Your task to perform on an android device: see sites visited before in the chrome app Image 0: 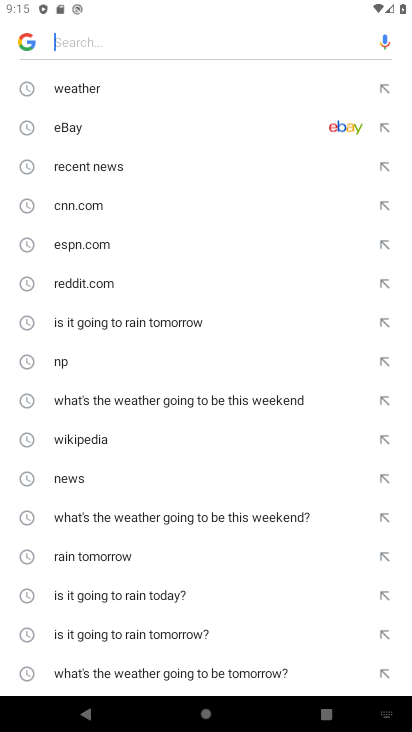
Step 0: press home button
Your task to perform on an android device: see sites visited before in the chrome app Image 1: 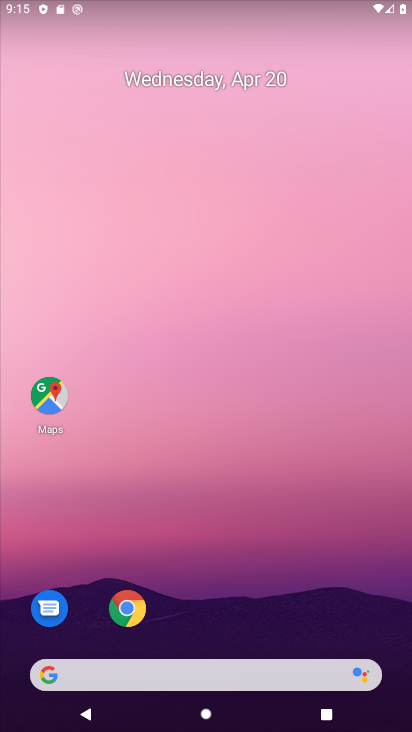
Step 1: click (147, 604)
Your task to perform on an android device: see sites visited before in the chrome app Image 2: 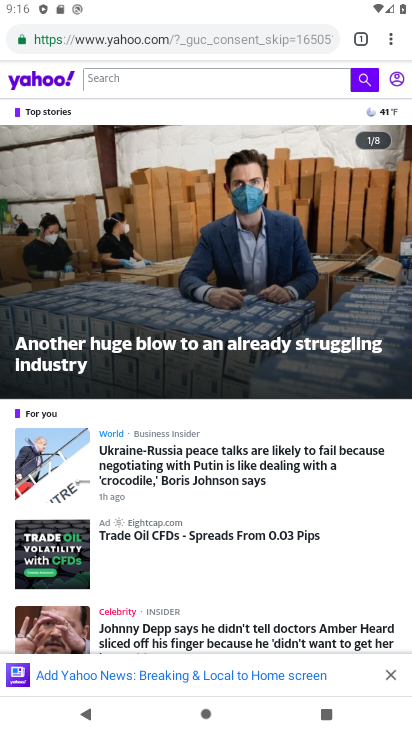
Step 2: click (396, 43)
Your task to perform on an android device: see sites visited before in the chrome app Image 3: 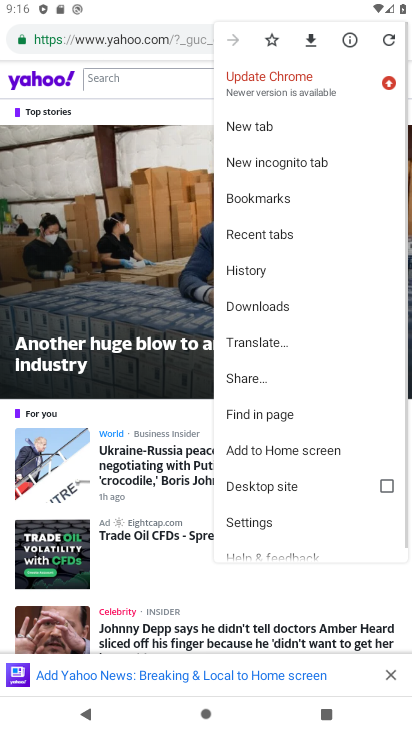
Step 3: click (269, 276)
Your task to perform on an android device: see sites visited before in the chrome app Image 4: 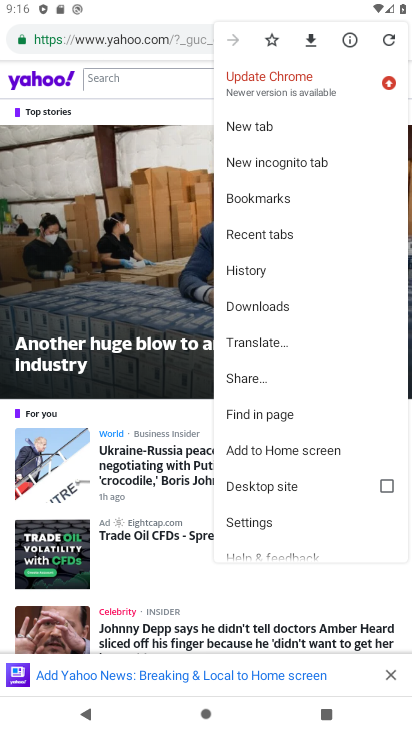
Step 4: click (270, 276)
Your task to perform on an android device: see sites visited before in the chrome app Image 5: 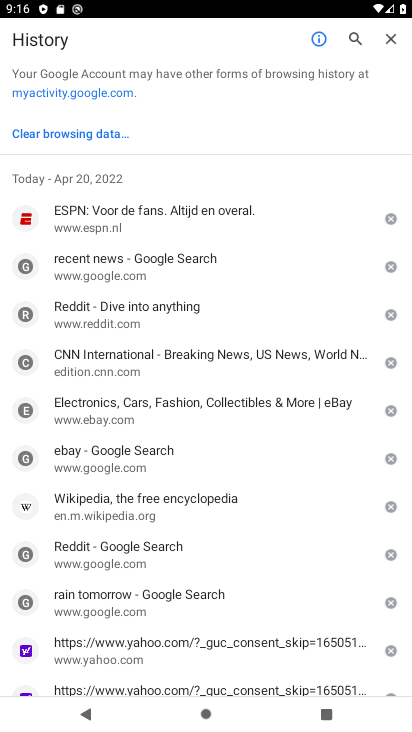
Step 5: task complete